Your task to perform on an android device: Check the news Image 0: 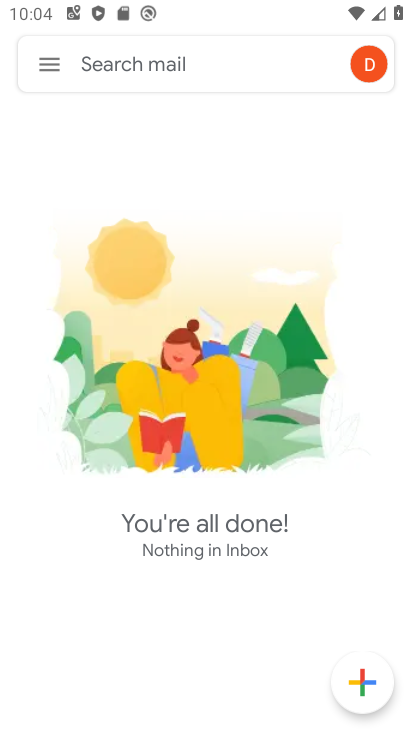
Step 0: press back button
Your task to perform on an android device: Check the news Image 1: 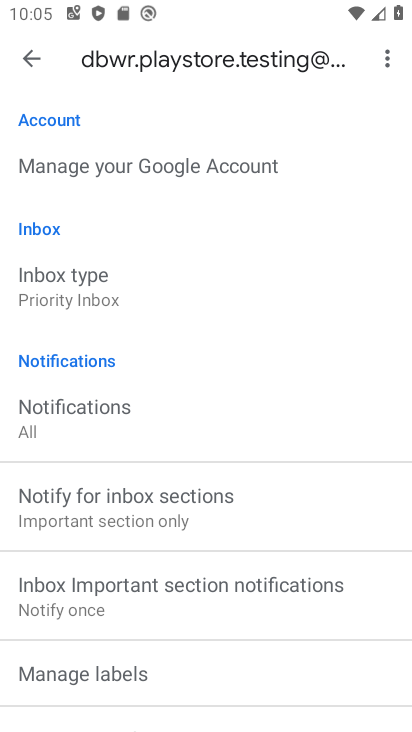
Step 1: press home button
Your task to perform on an android device: Check the news Image 2: 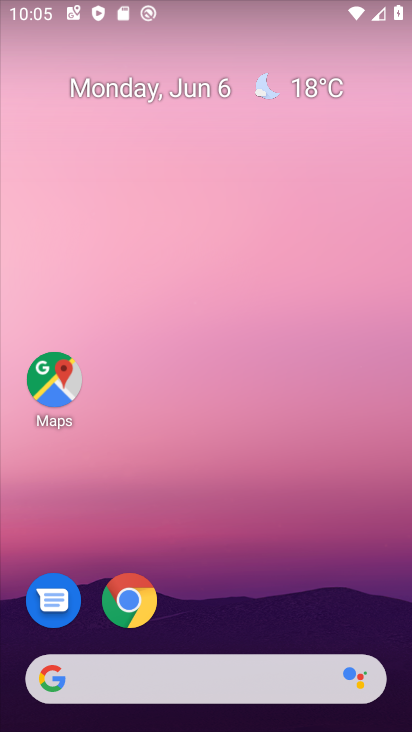
Step 2: drag from (263, 575) to (236, 5)
Your task to perform on an android device: Check the news Image 3: 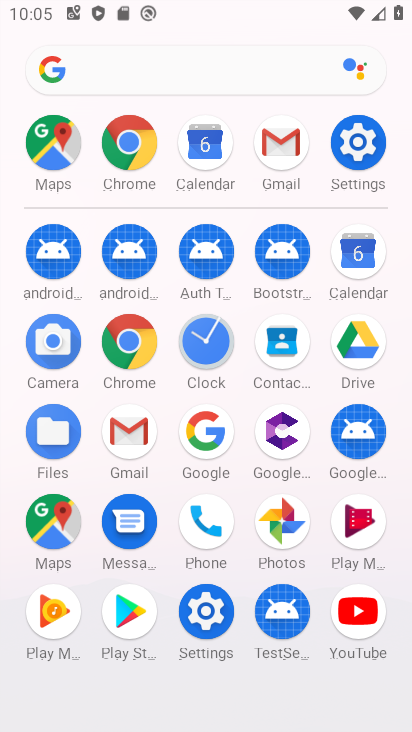
Step 3: click (126, 144)
Your task to perform on an android device: Check the news Image 4: 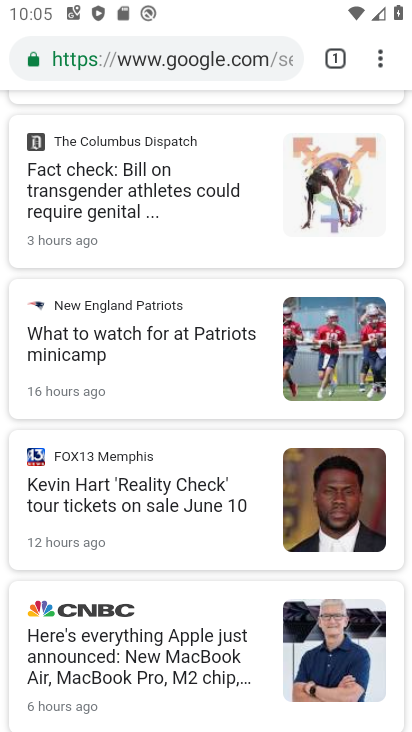
Step 4: click (175, 49)
Your task to perform on an android device: Check the news Image 5: 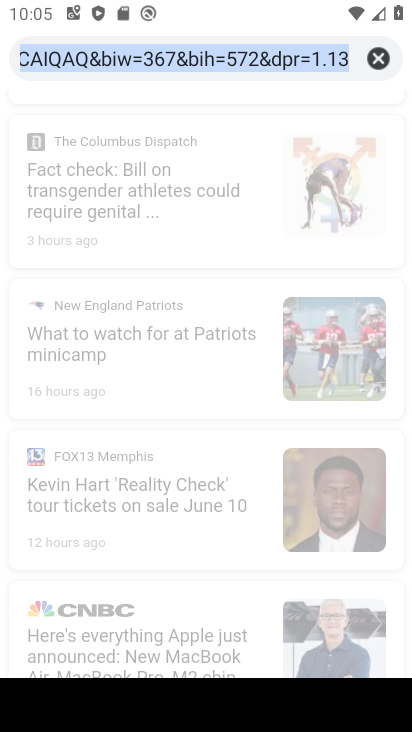
Step 5: click (373, 56)
Your task to perform on an android device: Check the news Image 6: 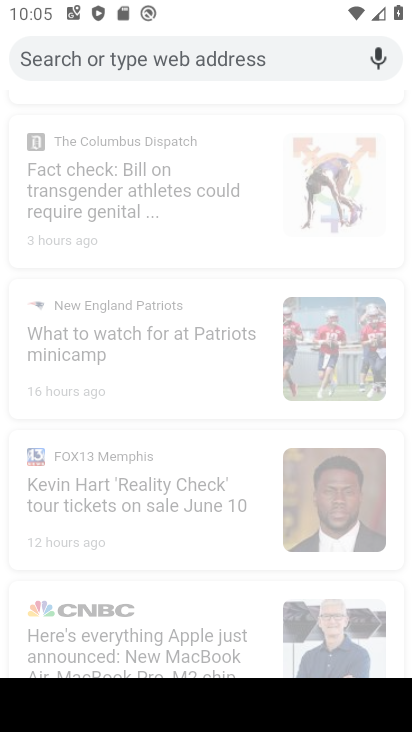
Step 6: type "Check the news"
Your task to perform on an android device: Check the news Image 7: 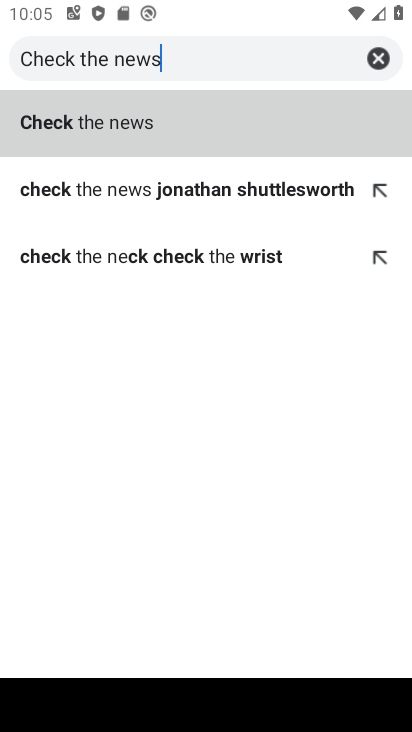
Step 7: type ""
Your task to perform on an android device: Check the news Image 8: 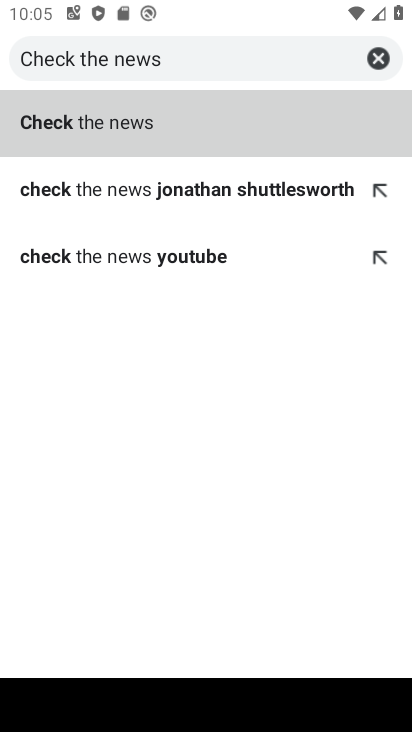
Step 8: click (148, 115)
Your task to perform on an android device: Check the news Image 9: 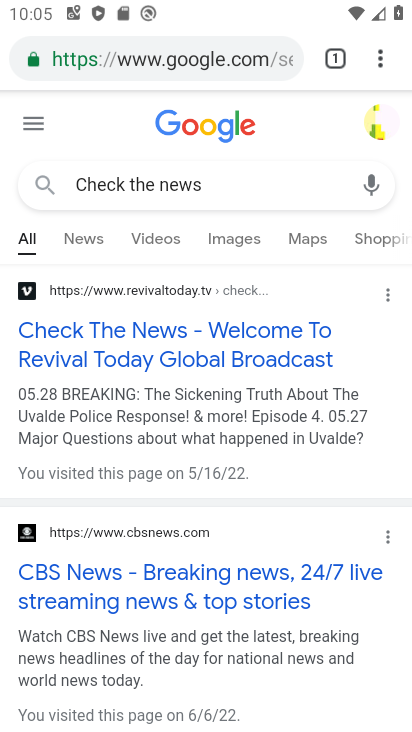
Step 9: click (86, 233)
Your task to perform on an android device: Check the news Image 10: 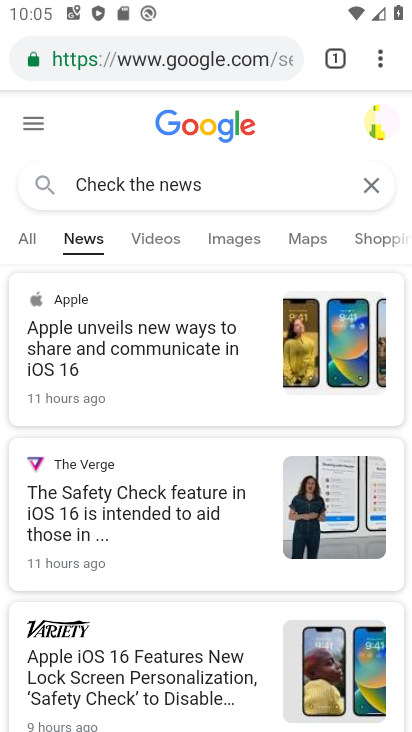
Step 10: task complete